Your task to perform on an android device: Play the last video I watched on Youtube Image 0: 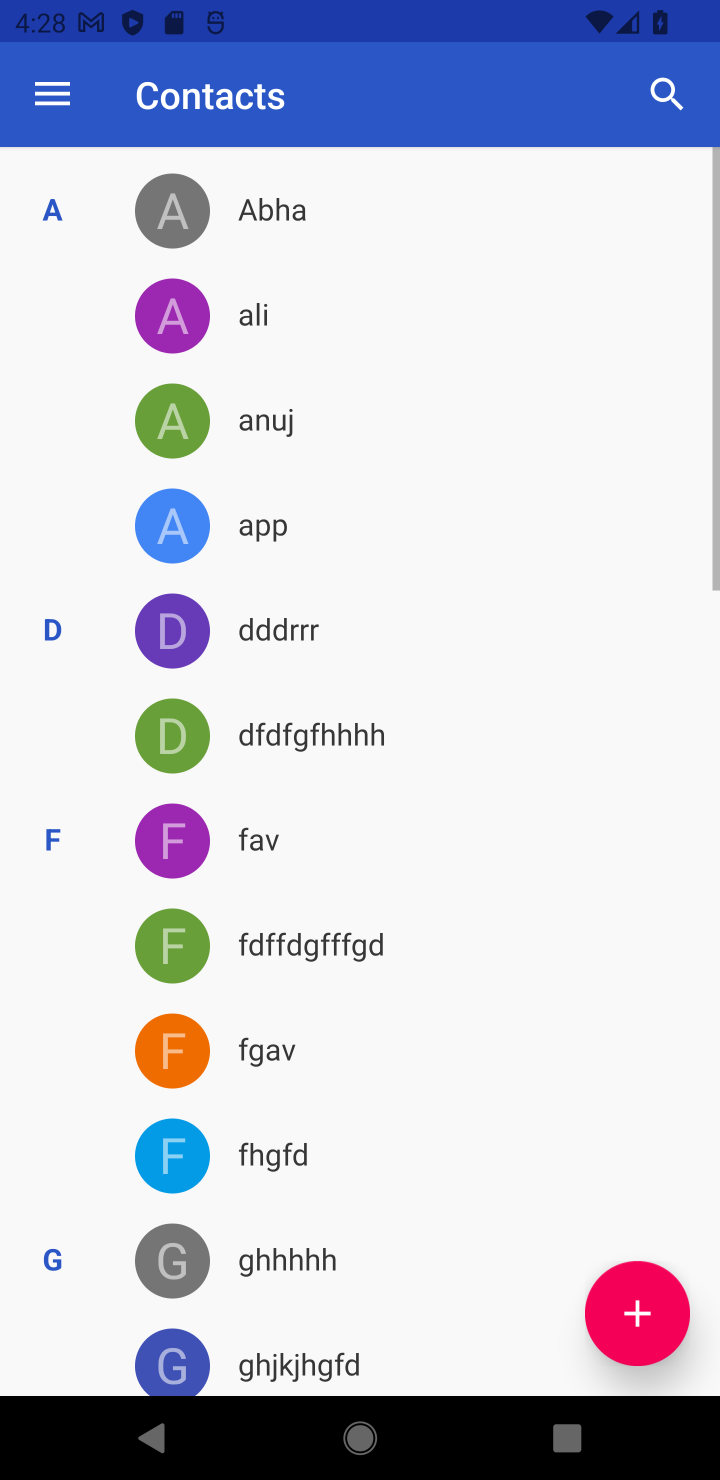
Step 0: press home button
Your task to perform on an android device: Play the last video I watched on Youtube Image 1: 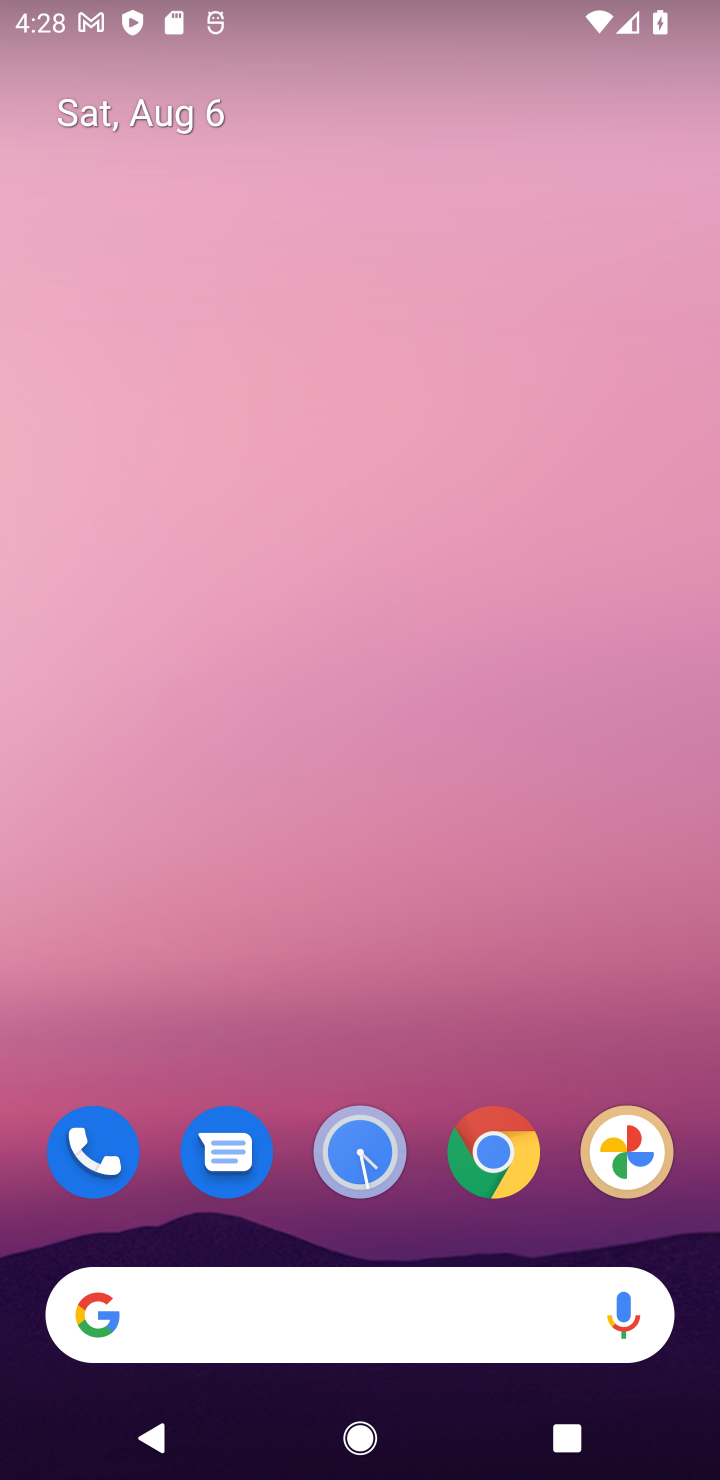
Step 1: drag from (574, 724) to (529, 427)
Your task to perform on an android device: Play the last video I watched on Youtube Image 2: 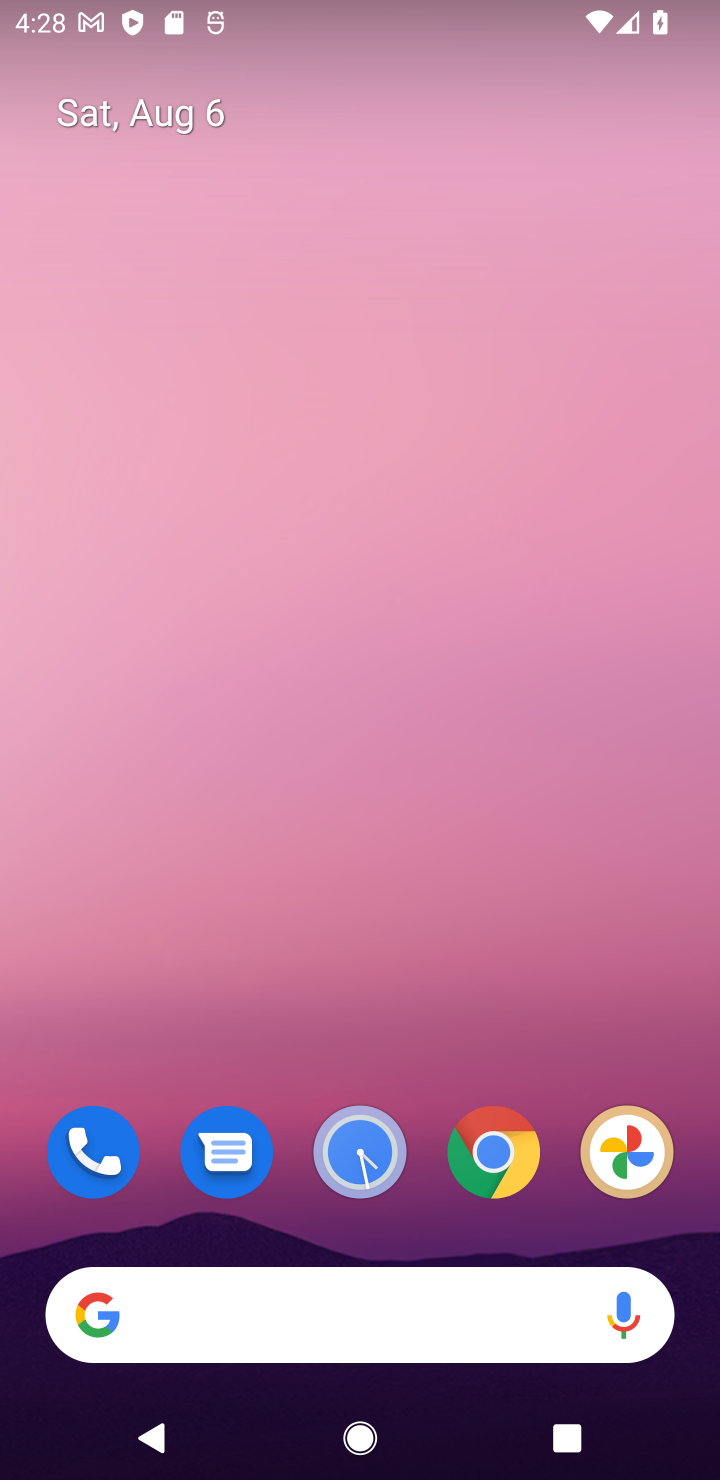
Step 2: drag from (289, 679) to (526, 27)
Your task to perform on an android device: Play the last video I watched on Youtube Image 3: 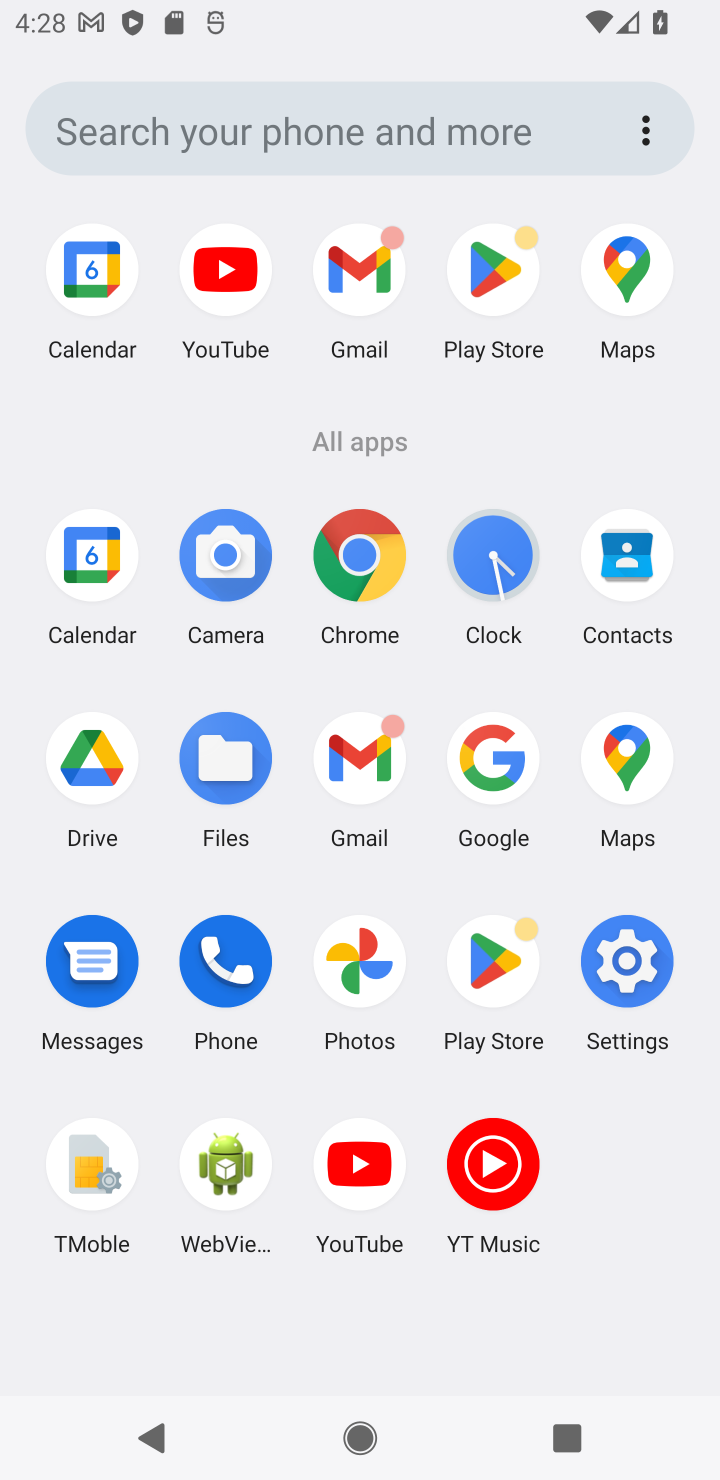
Step 3: click (343, 1161)
Your task to perform on an android device: Play the last video I watched on Youtube Image 4: 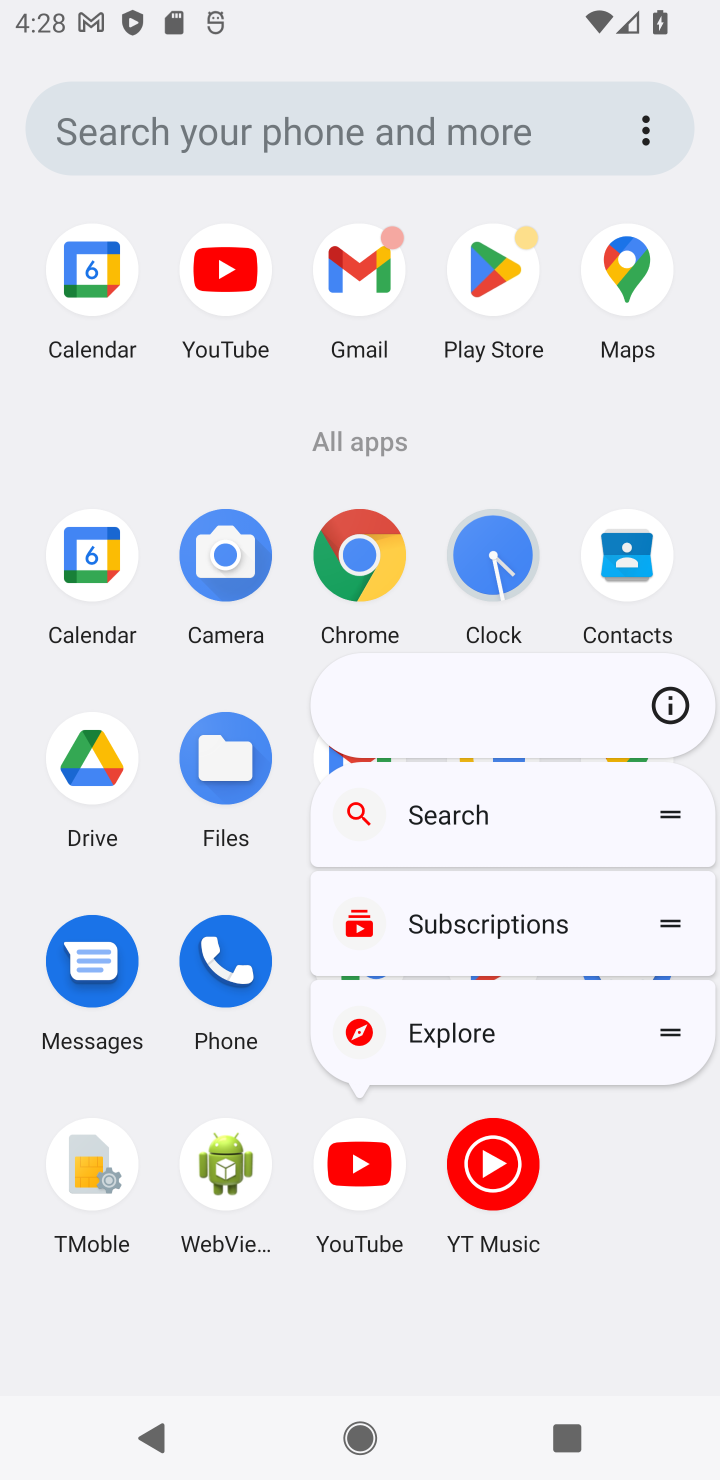
Step 4: click (343, 1157)
Your task to perform on an android device: Play the last video I watched on Youtube Image 5: 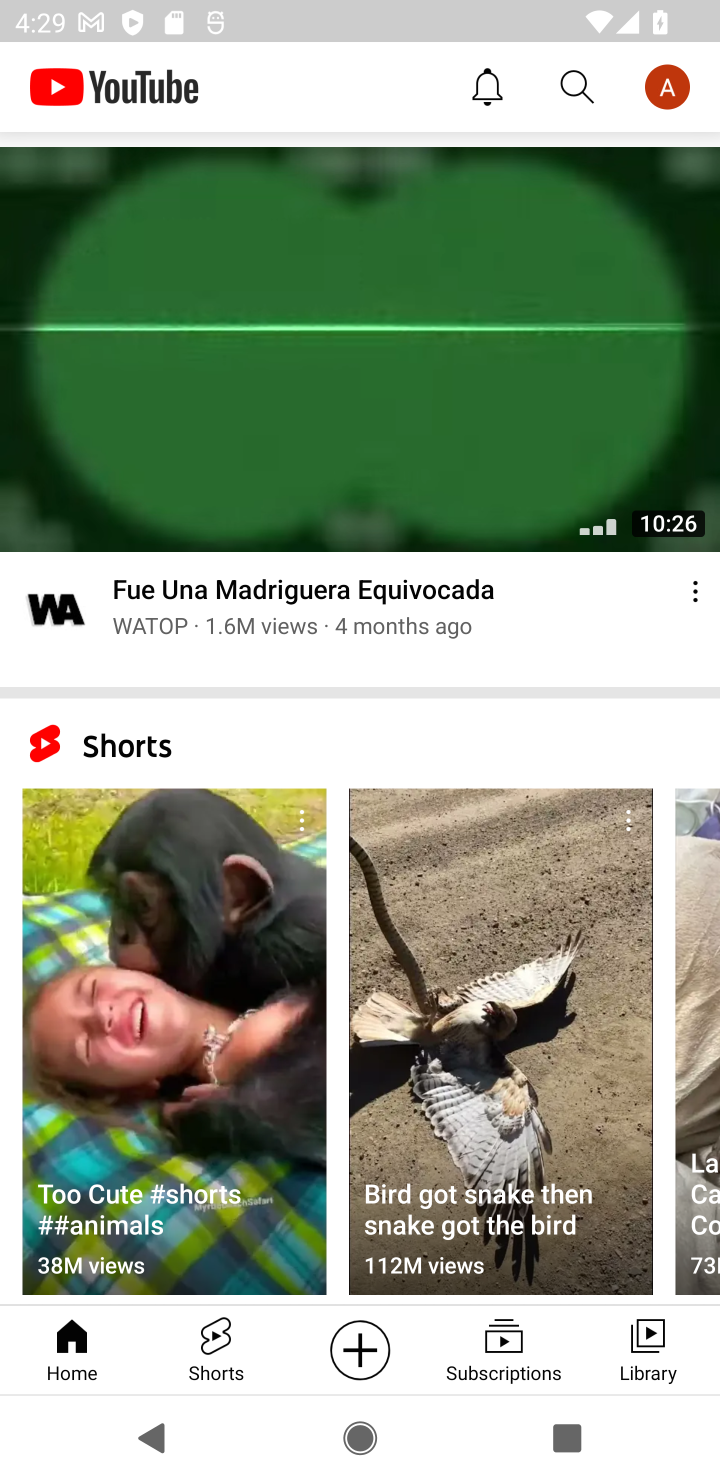
Step 5: click (657, 1362)
Your task to perform on an android device: Play the last video I watched on Youtube Image 6: 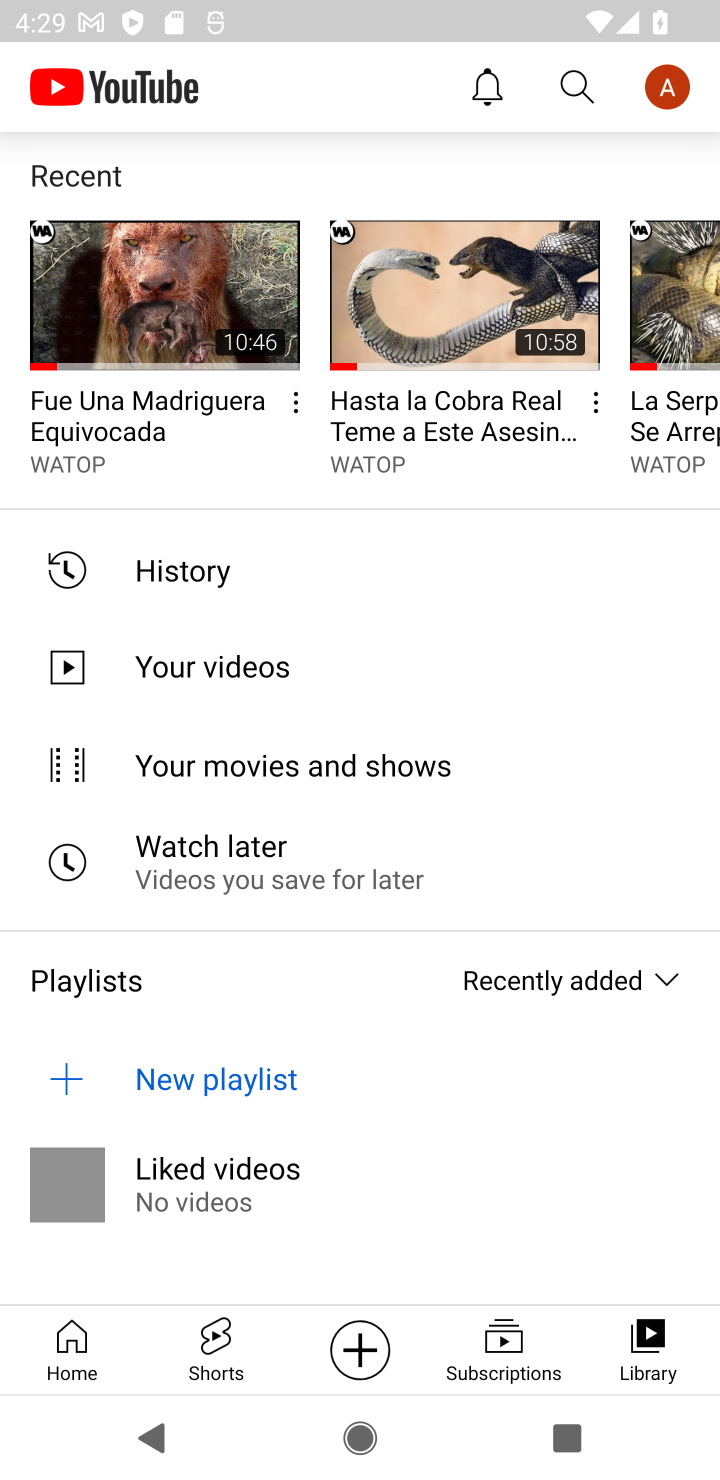
Step 6: click (98, 315)
Your task to perform on an android device: Play the last video I watched on Youtube Image 7: 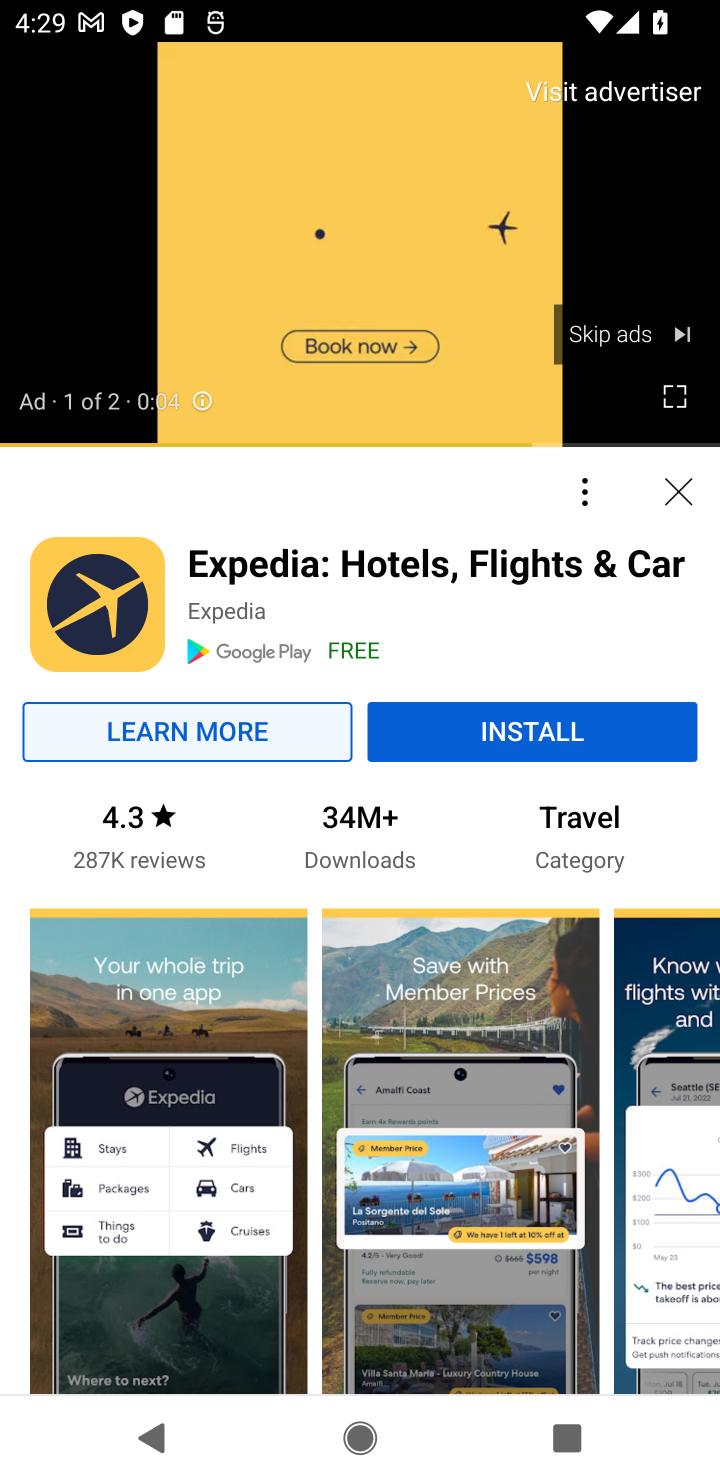
Step 7: task complete